Your task to perform on an android device: change text size in settings app Image 0: 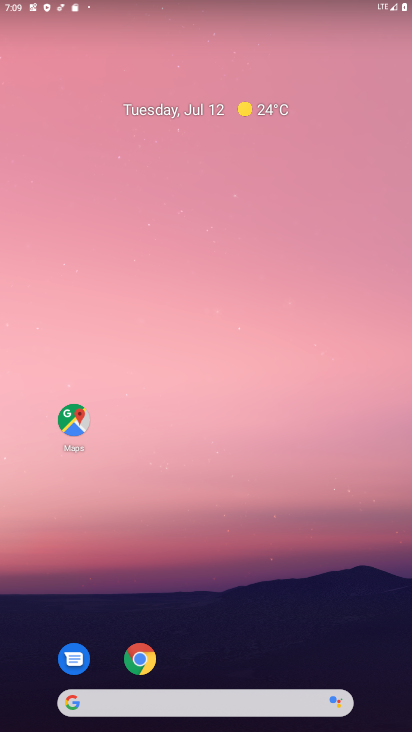
Step 0: drag from (317, 585) to (227, 11)
Your task to perform on an android device: change text size in settings app Image 1: 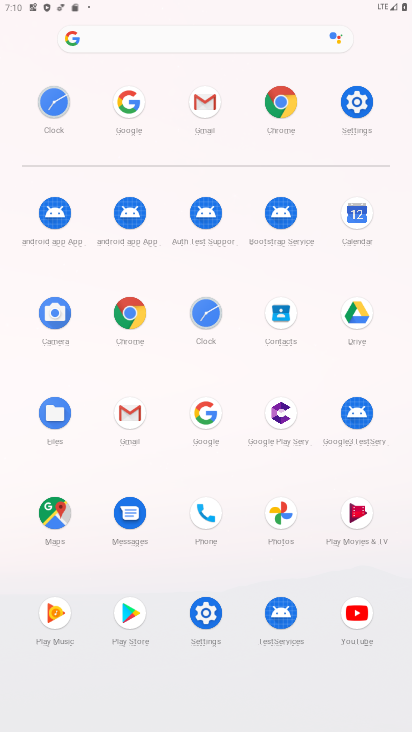
Step 1: click (358, 97)
Your task to perform on an android device: change text size in settings app Image 2: 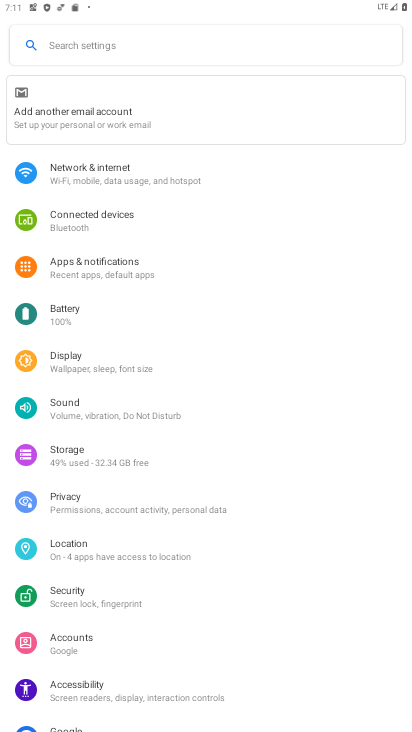
Step 2: click (88, 361)
Your task to perform on an android device: change text size in settings app Image 3: 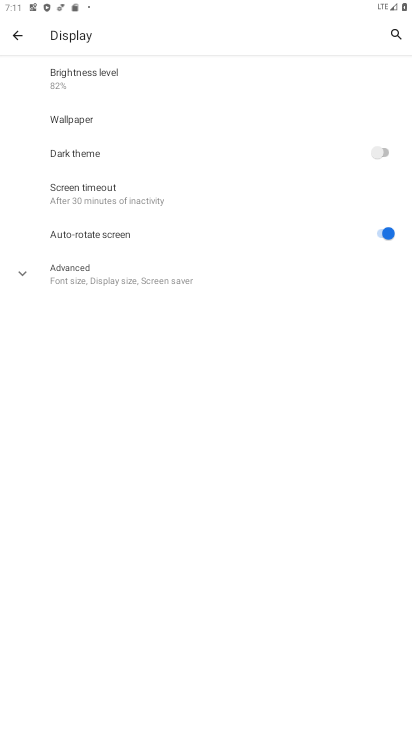
Step 3: click (74, 266)
Your task to perform on an android device: change text size in settings app Image 4: 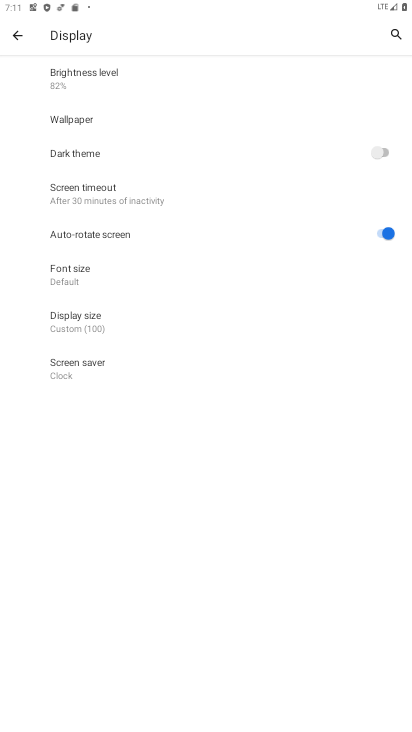
Step 4: click (84, 273)
Your task to perform on an android device: change text size in settings app Image 5: 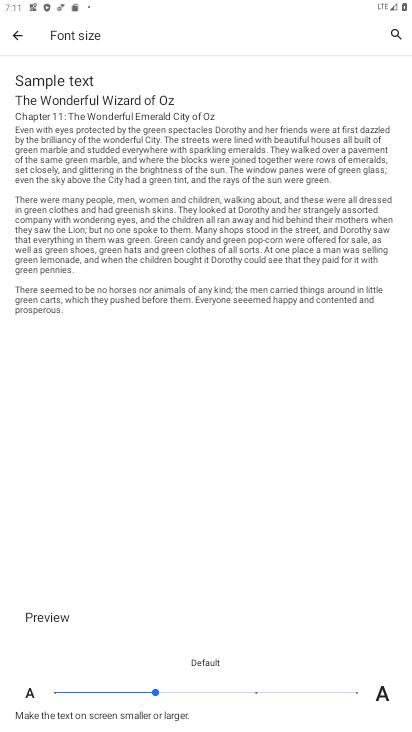
Step 5: click (357, 691)
Your task to perform on an android device: change text size in settings app Image 6: 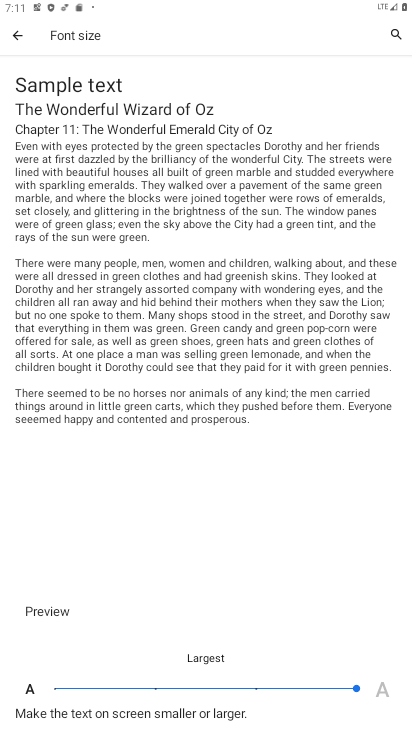
Step 6: task complete